Your task to perform on an android device: Open calendar and show me the first week of next month Image 0: 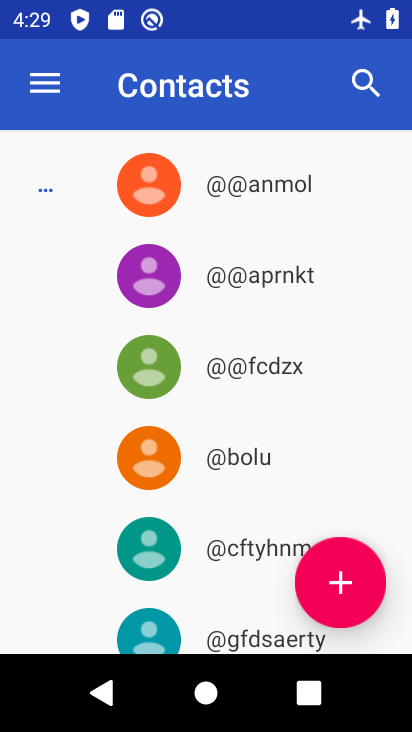
Step 0: press back button
Your task to perform on an android device: Open calendar and show me the first week of next month Image 1: 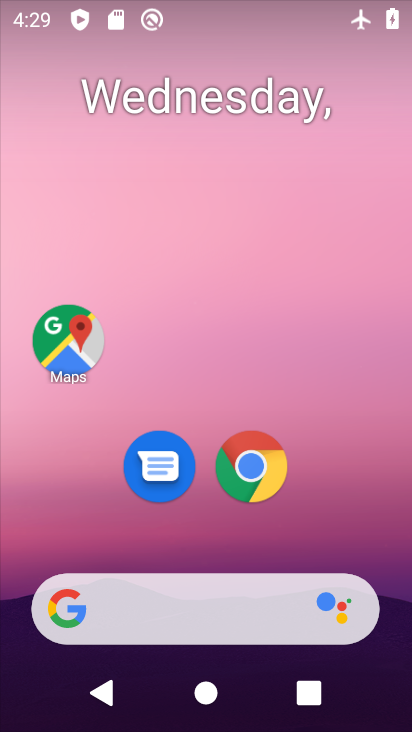
Step 1: drag from (317, 542) to (325, 3)
Your task to perform on an android device: Open calendar and show me the first week of next month Image 2: 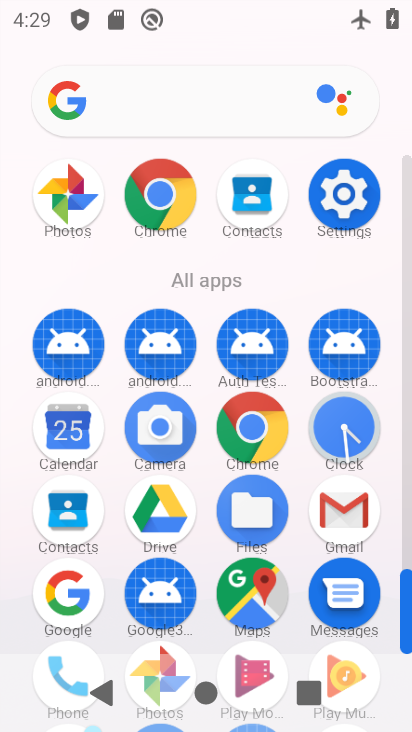
Step 2: click (64, 430)
Your task to perform on an android device: Open calendar and show me the first week of next month Image 3: 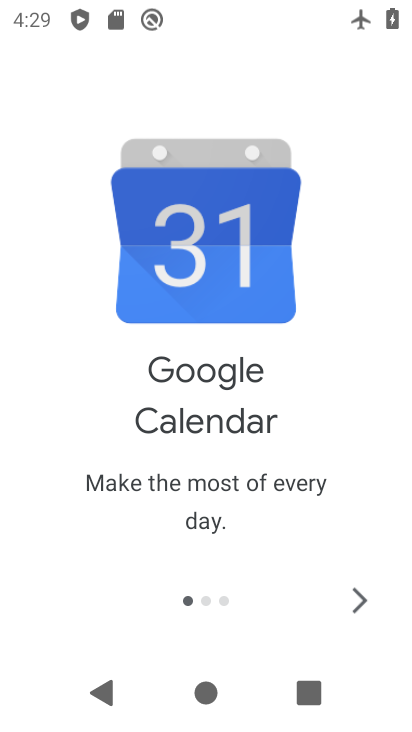
Step 3: click (360, 598)
Your task to perform on an android device: Open calendar and show me the first week of next month Image 4: 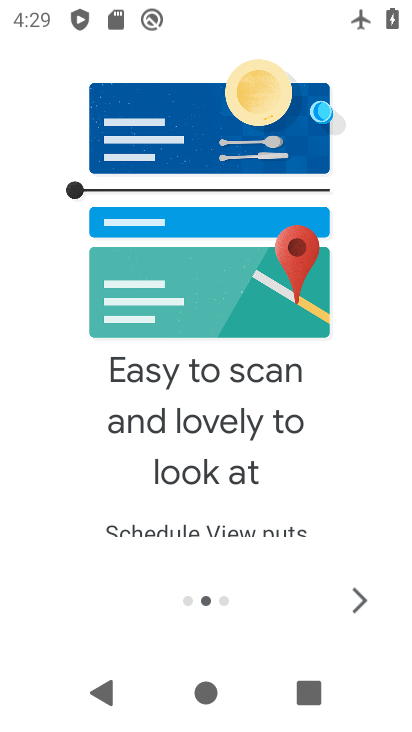
Step 4: click (360, 598)
Your task to perform on an android device: Open calendar and show me the first week of next month Image 5: 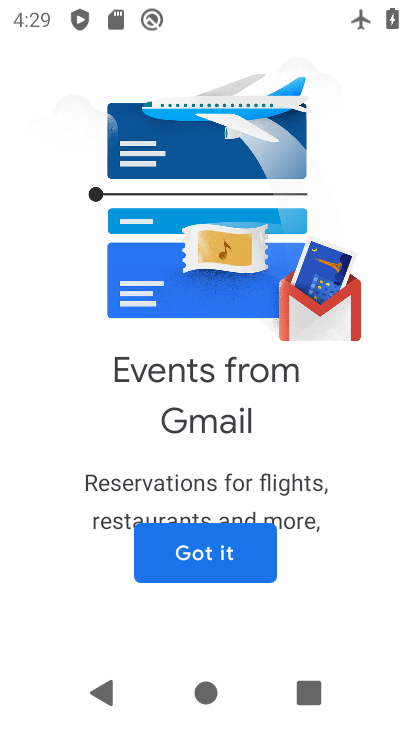
Step 5: click (215, 552)
Your task to perform on an android device: Open calendar and show me the first week of next month Image 6: 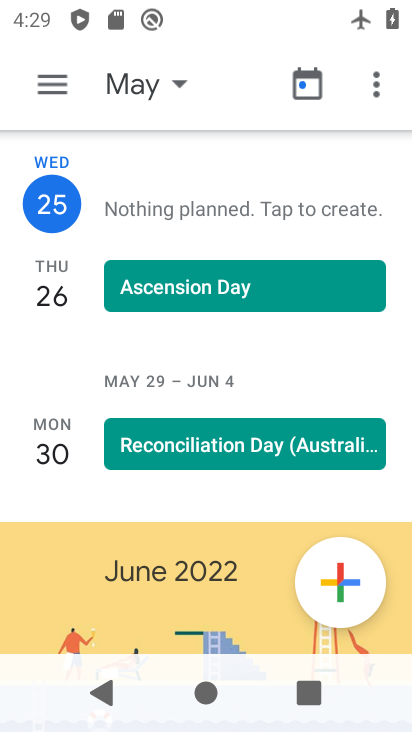
Step 6: click (309, 86)
Your task to perform on an android device: Open calendar and show me the first week of next month Image 7: 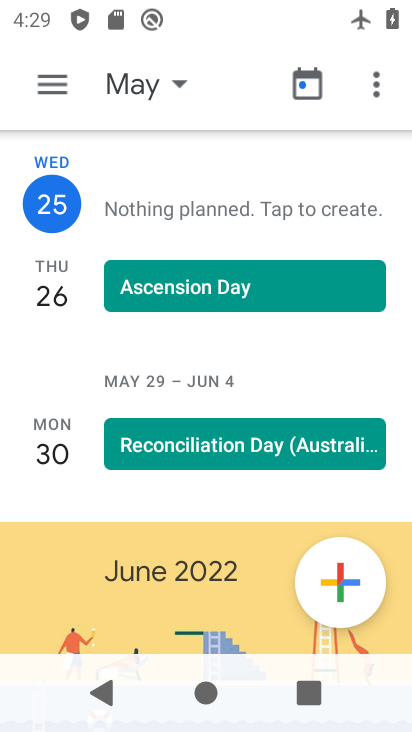
Step 7: click (159, 87)
Your task to perform on an android device: Open calendar and show me the first week of next month Image 8: 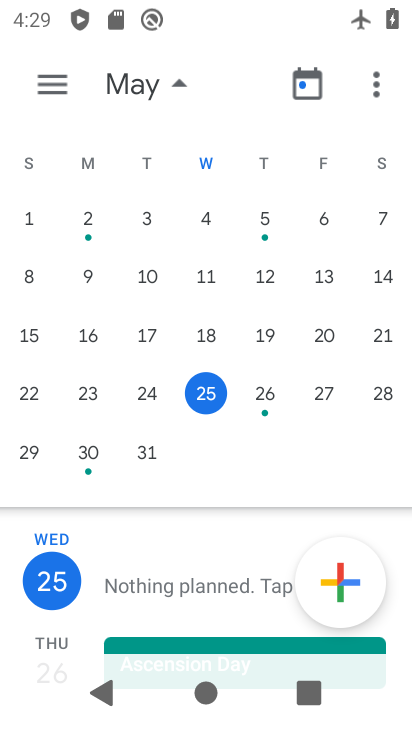
Step 8: drag from (365, 365) to (1, 420)
Your task to perform on an android device: Open calendar and show me the first week of next month Image 9: 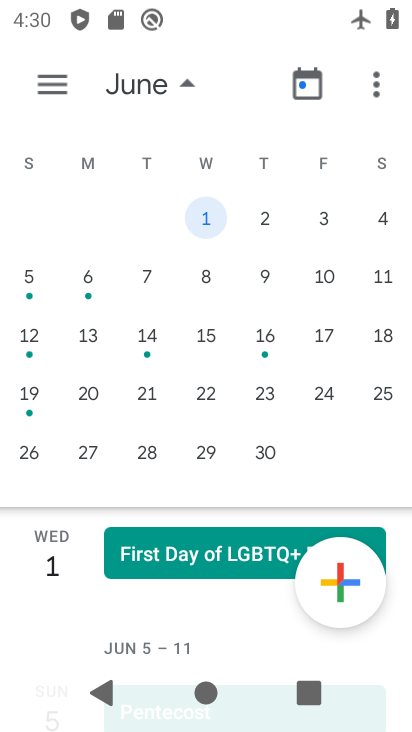
Step 9: click (95, 280)
Your task to perform on an android device: Open calendar and show me the first week of next month Image 10: 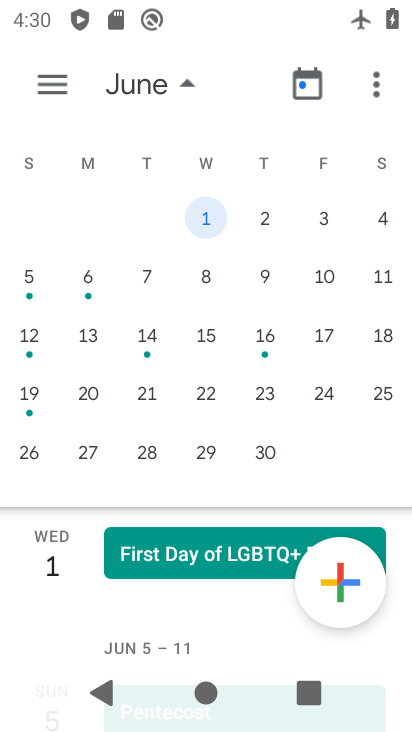
Step 10: click (86, 285)
Your task to perform on an android device: Open calendar and show me the first week of next month Image 11: 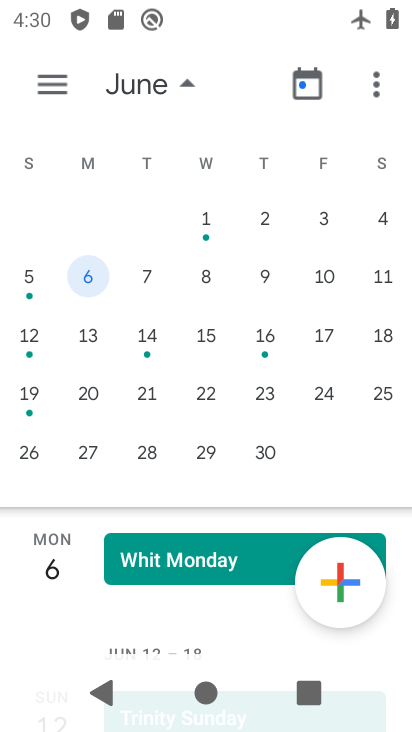
Step 11: click (54, 82)
Your task to perform on an android device: Open calendar and show me the first week of next month Image 12: 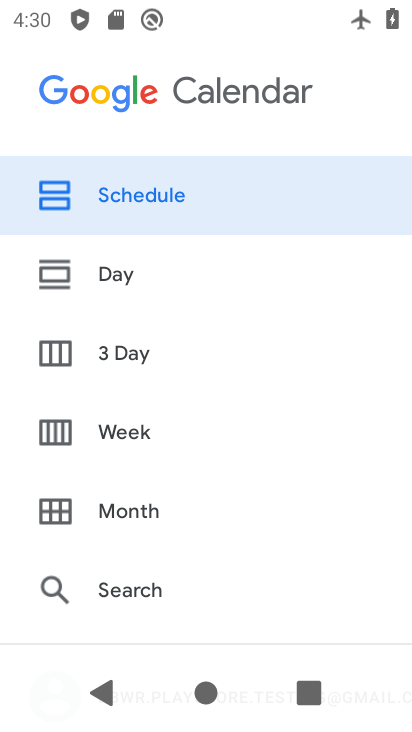
Step 12: click (132, 440)
Your task to perform on an android device: Open calendar and show me the first week of next month Image 13: 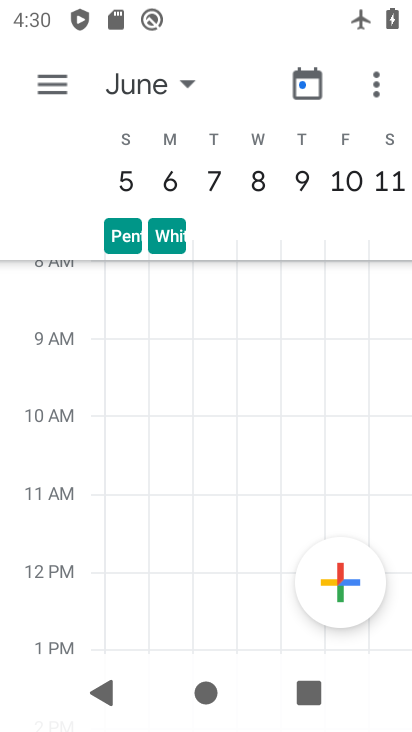
Step 13: task complete